Your task to perform on an android device: change alarm snooze length Image 0: 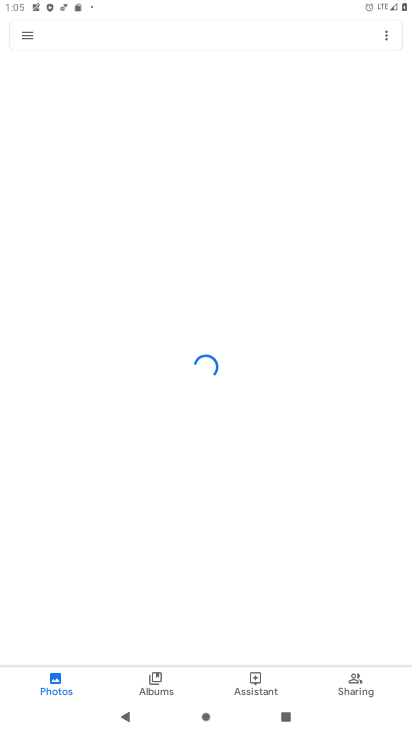
Step 0: press home button
Your task to perform on an android device: change alarm snooze length Image 1: 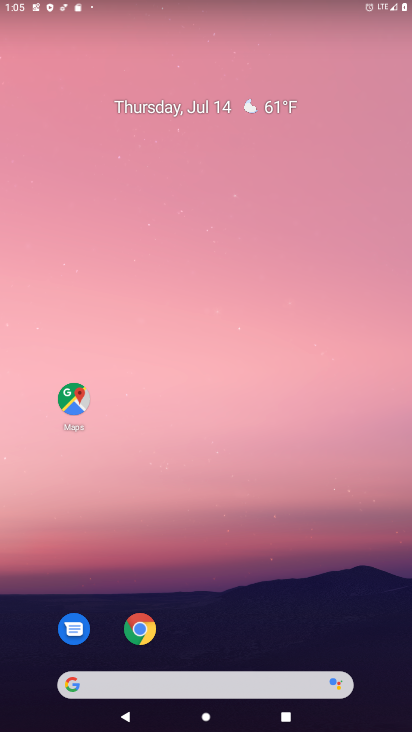
Step 1: drag from (199, 618) to (199, 158)
Your task to perform on an android device: change alarm snooze length Image 2: 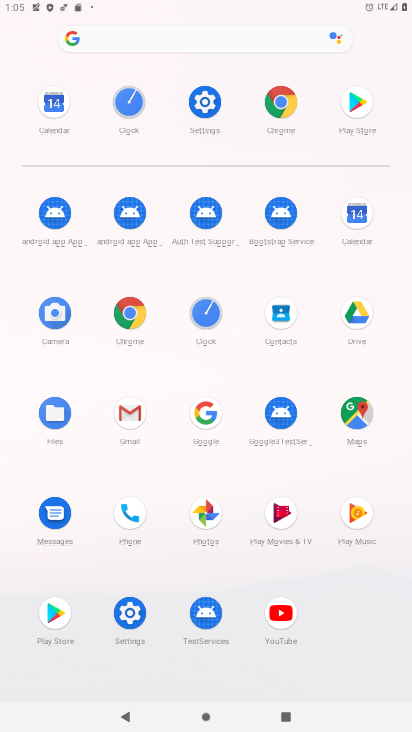
Step 2: click (205, 305)
Your task to perform on an android device: change alarm snooze length Image 3: 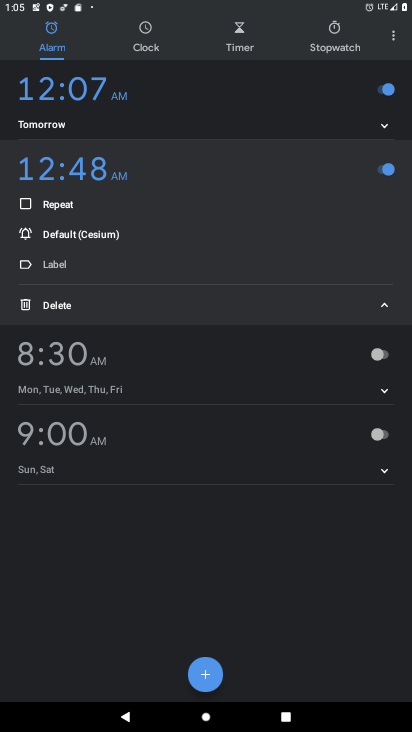
Step 3: click (397, 42)
Your task to perform on an android device: change alarm snooze length Image 4: 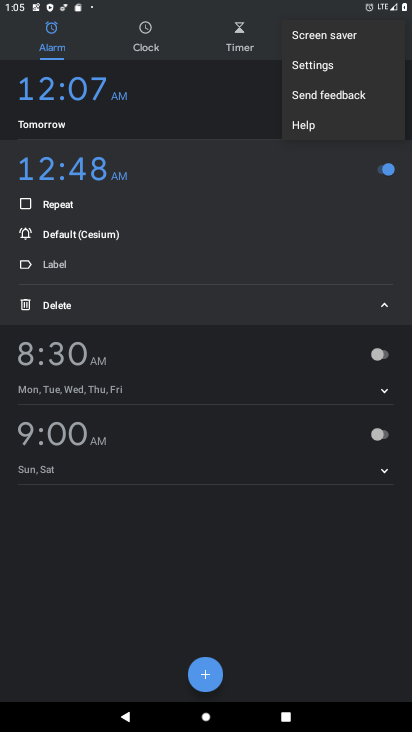
Step 4: click (324, 66)
Your task to perform on an android device: change alarm snooze length Image 5: 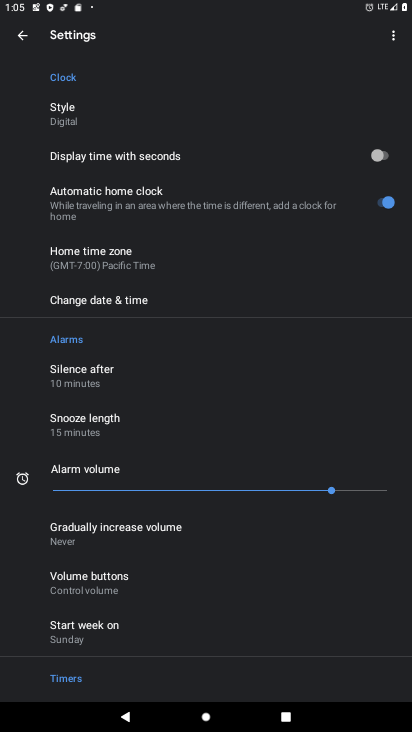
Step 5: click (111, 415)
Your task to perform on an android device: change alarm snooze length Image 6: 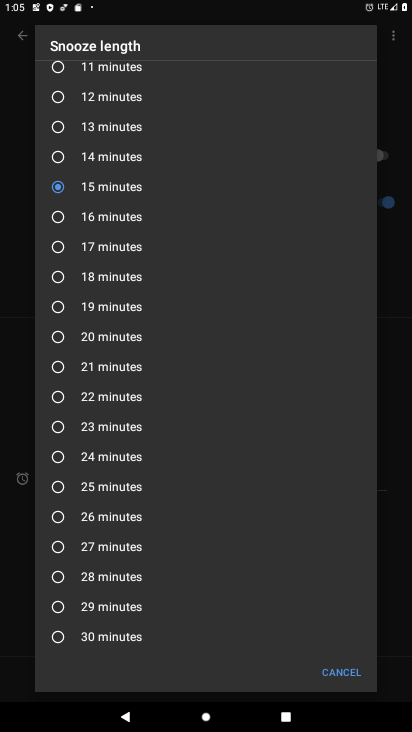
Step 6: click (57, 216)
Your task to perform on an android device: change alarm snooze length Image 7: 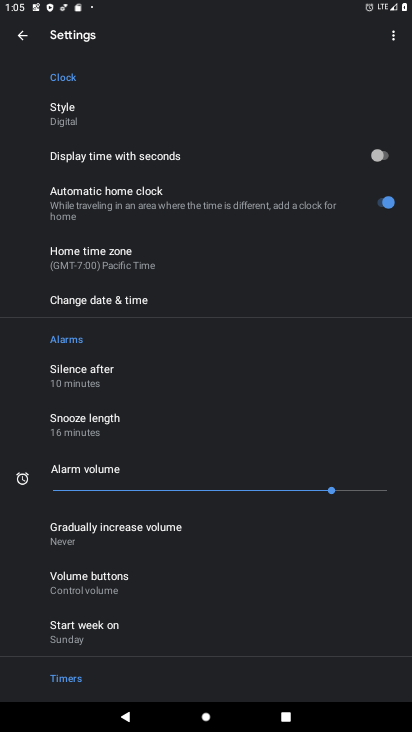
Step 7: task complete